Your task to perform on an android device: Go to wifi settings Image 0: 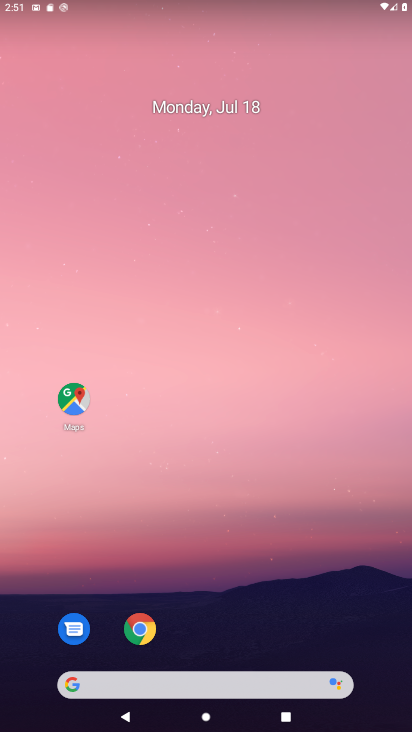
Step 0: drag from (354, 625) to (366, 114)
Your task to perform on an android device: Go to wifi settings Image 1: 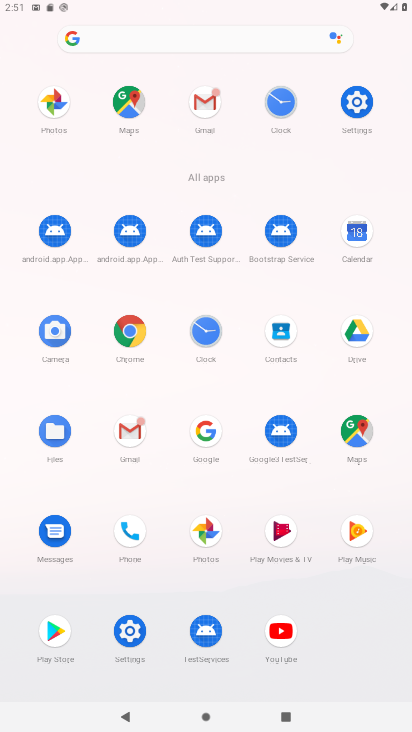
Step 1: click (356, 107)
Your task to perform on an android device: Go to wifi settings Image 2: 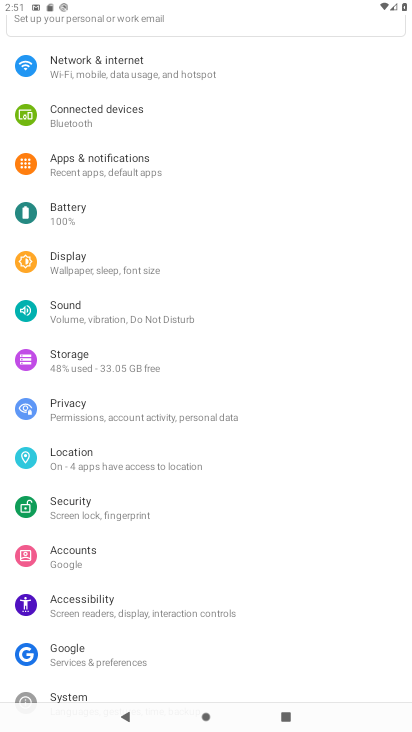
Step 2: drag from (343, 481) to (342, 400)
Your task to perform on an android device: Go to wifi settings Image 3: 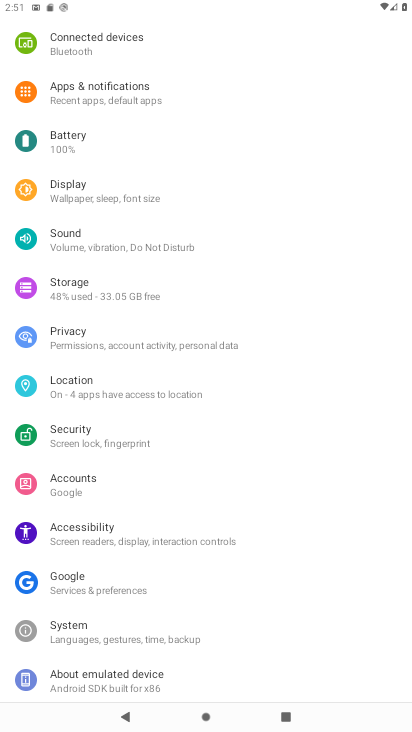
Step 3: drag from (325, 511) to (325, 417)
Your task to perform on an android device: Go to wifi settings Image 4: 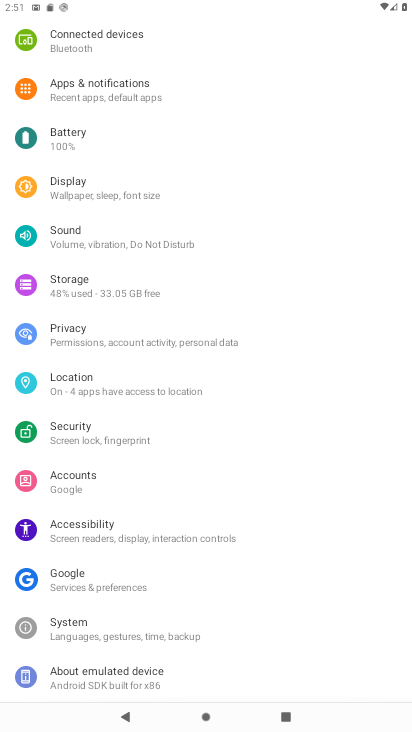
Step 4: drag from (326, 350) to (328, 422)
Your task to perform on an android device: Go to wifi settings Image 5: 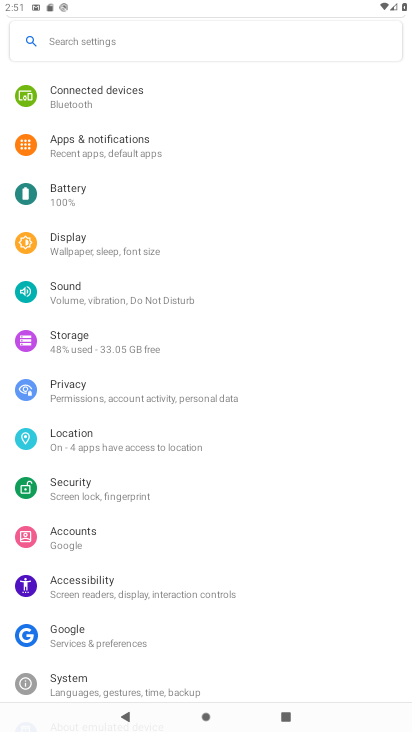
Step 5: drag from (321, 348) to (322, 427)
Your task to perform on an android device: Go to wifi settings Image 6: 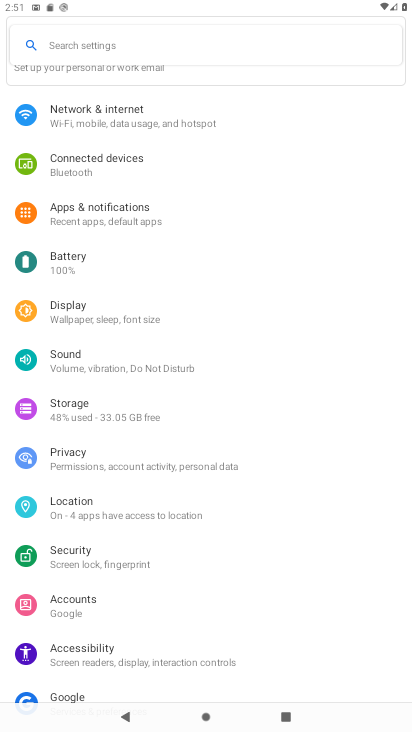
Step 6: drag from (314, 280) to (318, 394)
Your task to perform on an android device: Go to wifi settings Image 7: 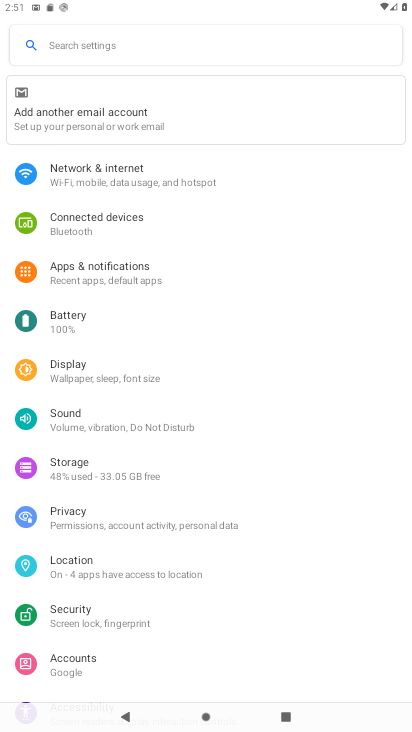
Step 7: drag from (316, 236) to (314, 351)
Your task to perform on an android device: Go to wifi settings Image 8: 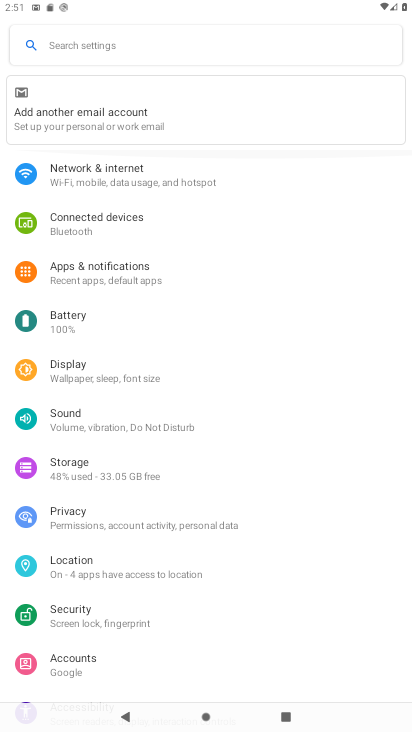
Step 8: click (205, 179)
Your task to perform on an android device: Go to wifi settings Image 9: 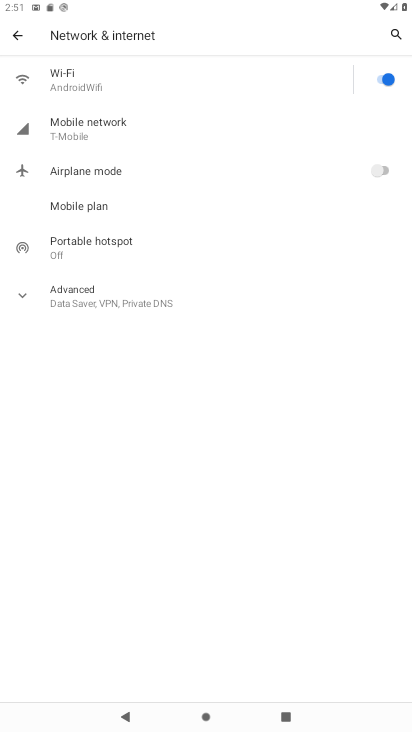
Step 9: click (143, 92)
Your task to perform on an android device: Go to wifi settings Image 10: 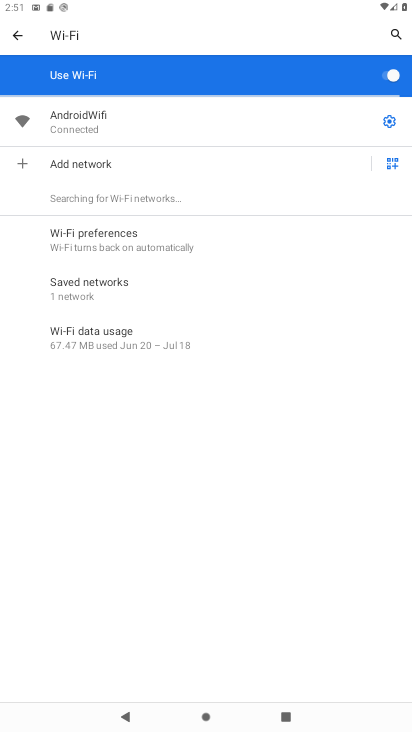
Step 10: task complete